Your task to perform on an android device: turn off smart reply in the gmail app Image 0: 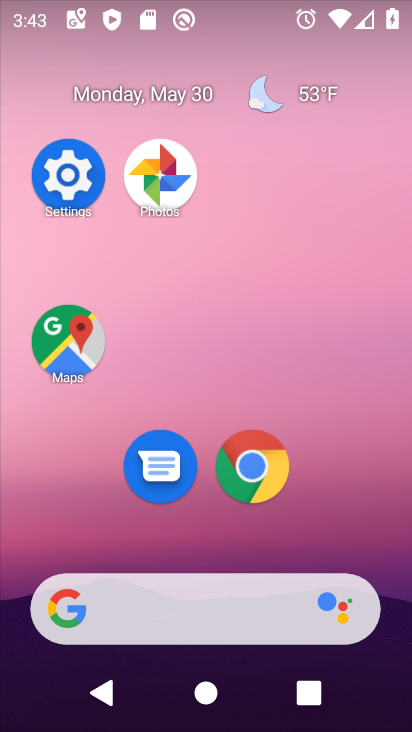
Step 0: drag from (303, 572) to (312, 174)
Your task to perform on an android device: turn off smart reply in the gmail app Image 1: 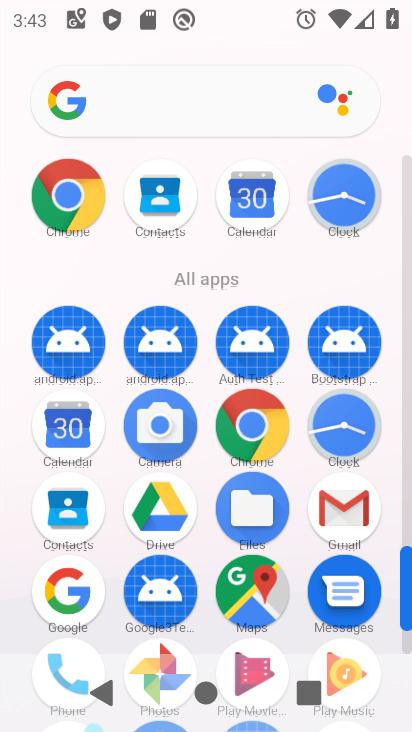
Step 1: click (344, 509)
Your task to perform on an android device: turn off smart reply in the gmail app Image 2: 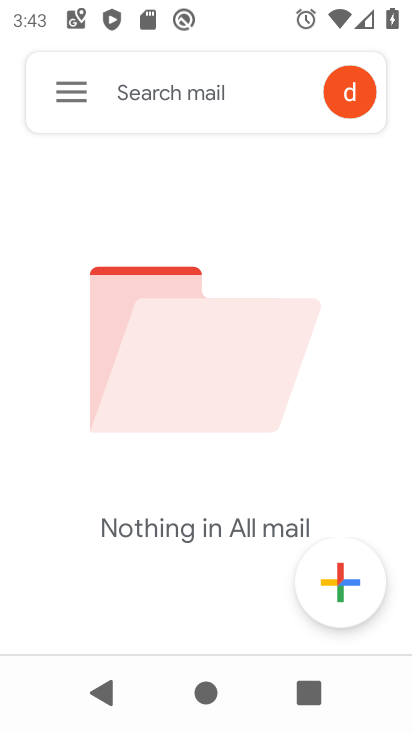
Step 2: click (85, 113)
Your task to perform on an android device: turn off smart reply in the gmail app Image 3: 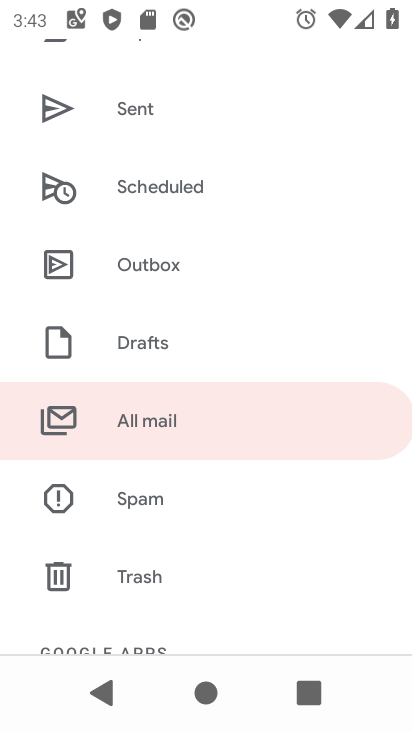
Step 3: drag from (229, 538) to (254, 186)
Your task to perform on an android device: turn off smart reply in the gmail app Image 4: 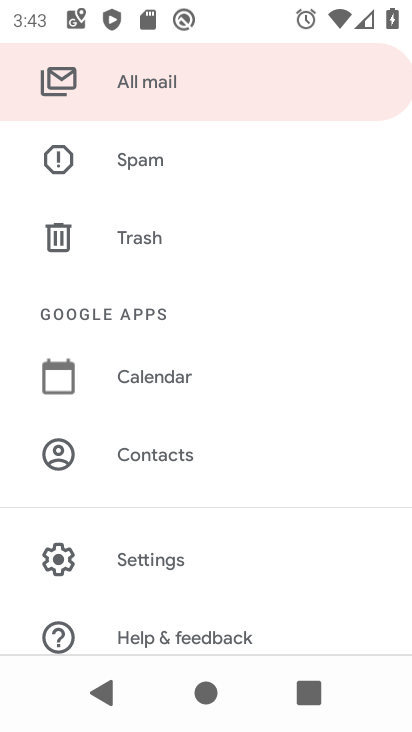
Step 4: click (187, 548)
Your task to perform on an android device: turn off smart reply in the gmail app Image 5: 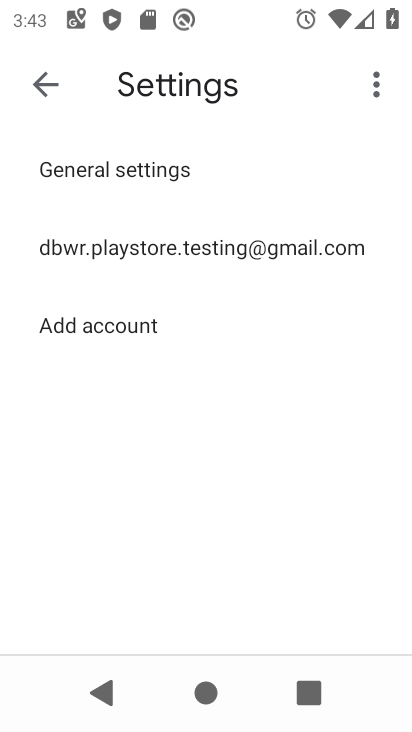
Step 5: drag from (181, 533) to (184, 308)
Your task to perform on an android device: turn off smart reply in the gmail app Image 6: 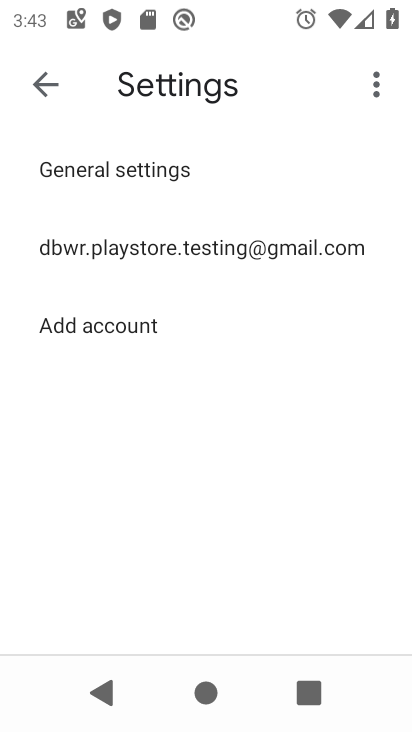
Step 6: click (210, 262)
Your task to perform on an android device: turn off smart reply in the gmail app Image 7: 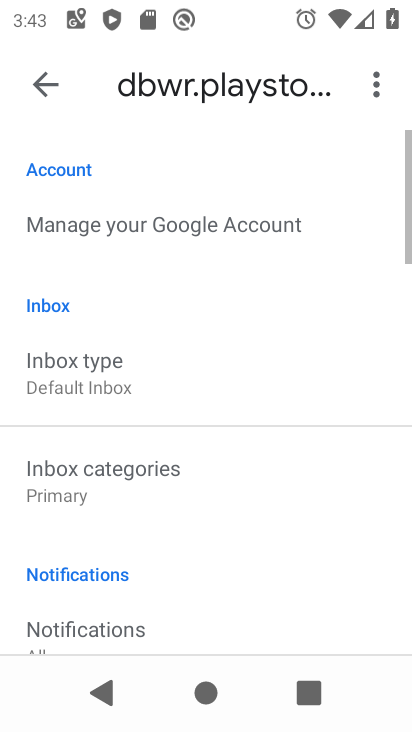
Step 7: drag from (230, 547) to (216, 253)
Your task to perform on an android device: turn off smart reply in the gmail app Image 8: 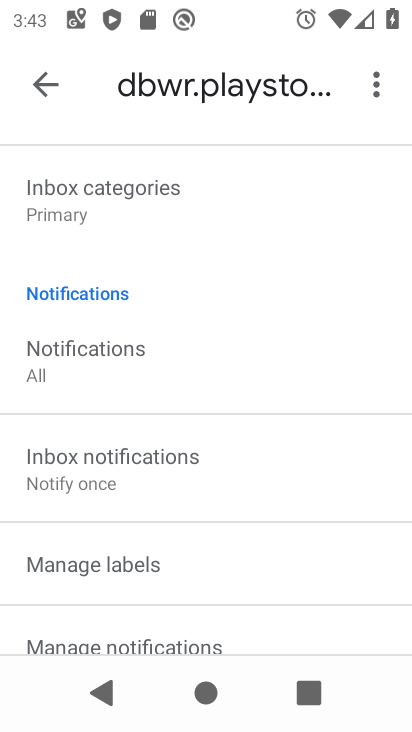
Step 8: drag from (246, 535) to (229, 235)
Your task to perform on an android device: turn off smart reply in the gmail app Image 9: 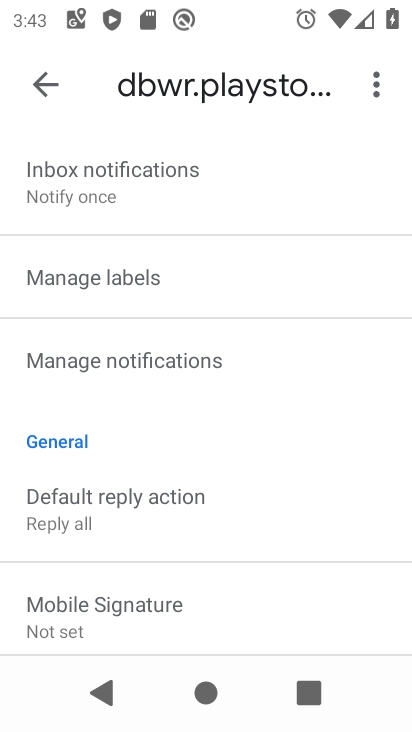
Step 9: drag from (284, 540) to (253, 227)
Your task to perform on an android device: turn off smart reply in the gmail app Image 10: 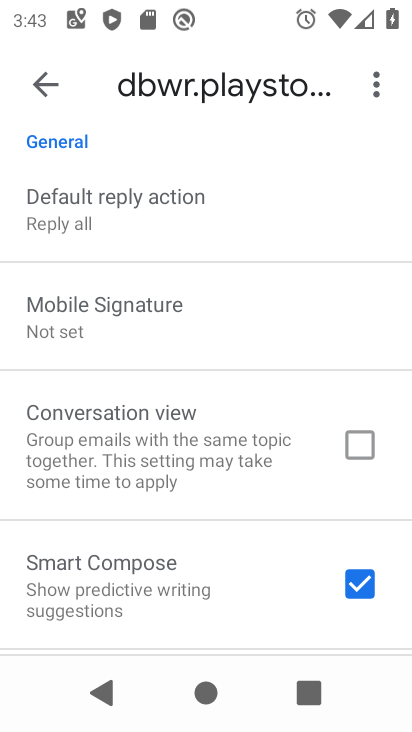
Step 10: drag from (202, 569) to (204, 339)
Your task to perform on an android device: turn off smart reply in the gmail app Image 11: 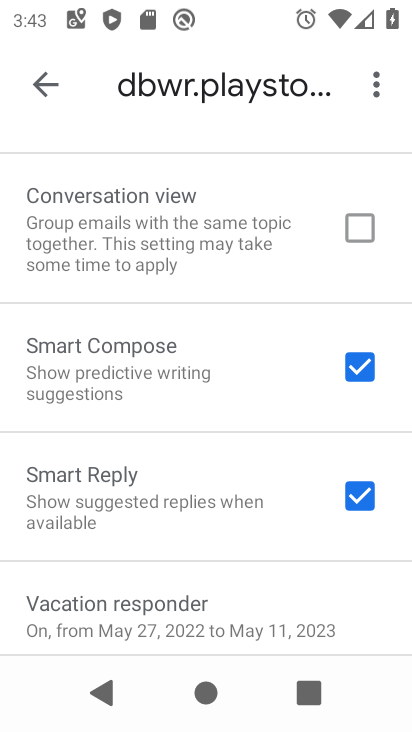
Step 11: click (372, 485)
Your task to perform on an android device: turn off smart reply in the gmail app Image 12: 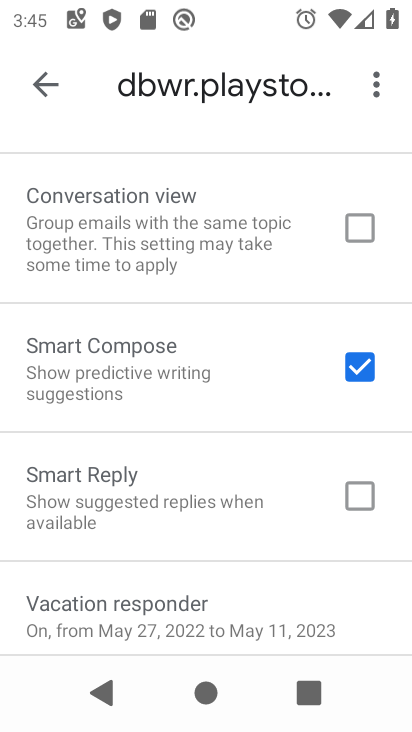
Step 12: task complete